Your task to perform on an android device: toggle priority inbox in the gmail app Image 0: 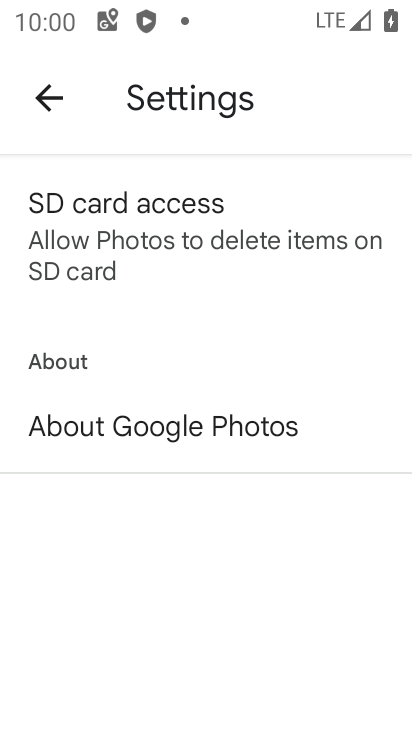
Step 0: press home button
Your task to perform on an android device: toggle priority inbox in the gmail app Image 1: 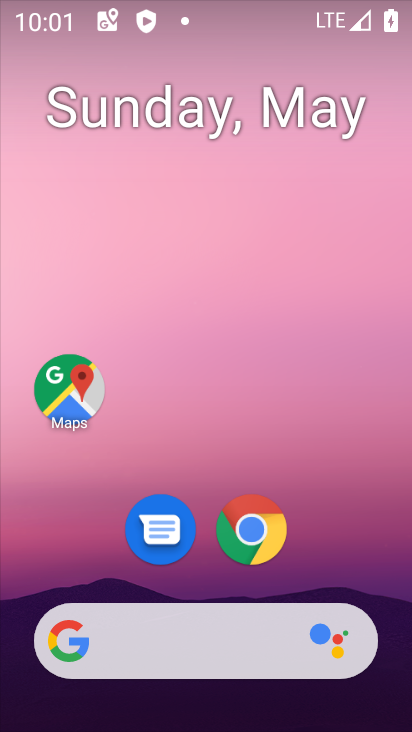
Step 1: drag from (350, 561) to (328, 446)
Your task to perform on an android device: toggle priority inbox in the gmail app Image 2: 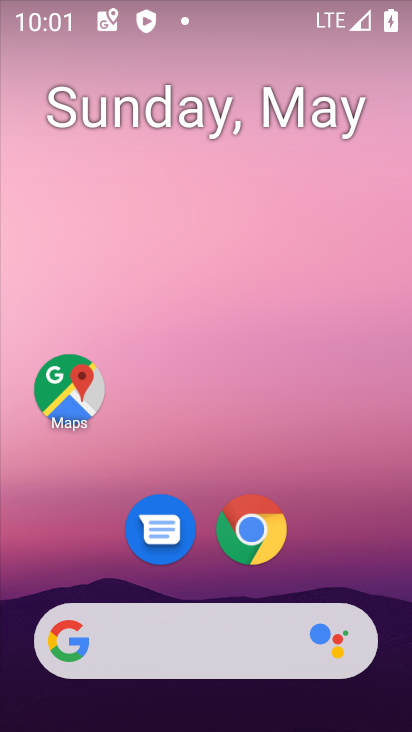
Step 2: drag from (369, 525) to (288, 150)
Your task to perform on an android device: toggle priority inbox in the gmail app Image 3: 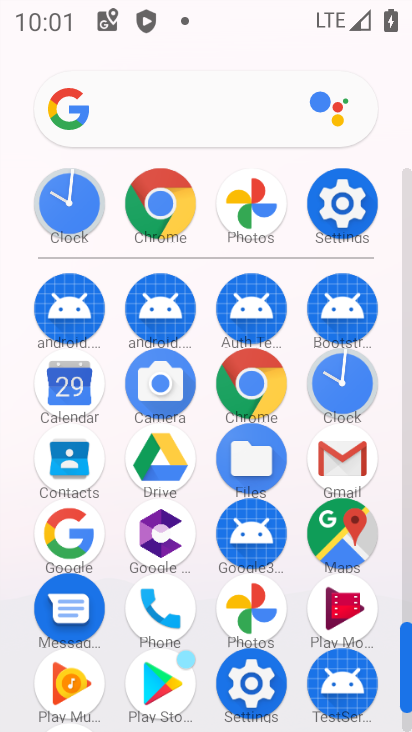
Step 3: click (340, 477)
Your task to perform on an android device: toggle priority inbox in the gmail app Image 4: 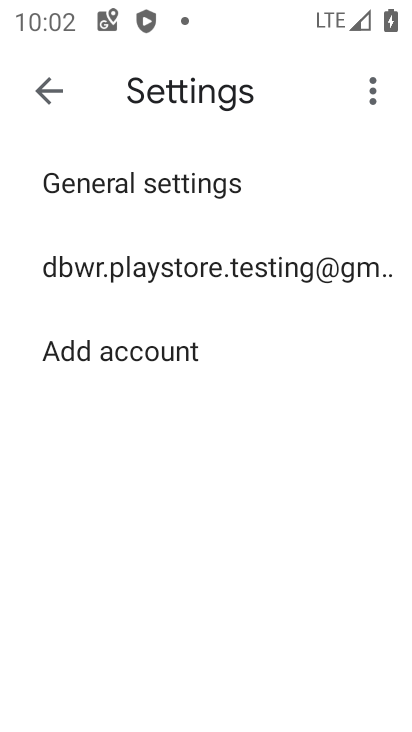
Step 4: task complete